Your task to perform on an android device: Clear all items from cart on newegg.com. Search for "bose soundsport free" on newegg.com, select the first entry, add it to the cart, then select checkout. Image 0: 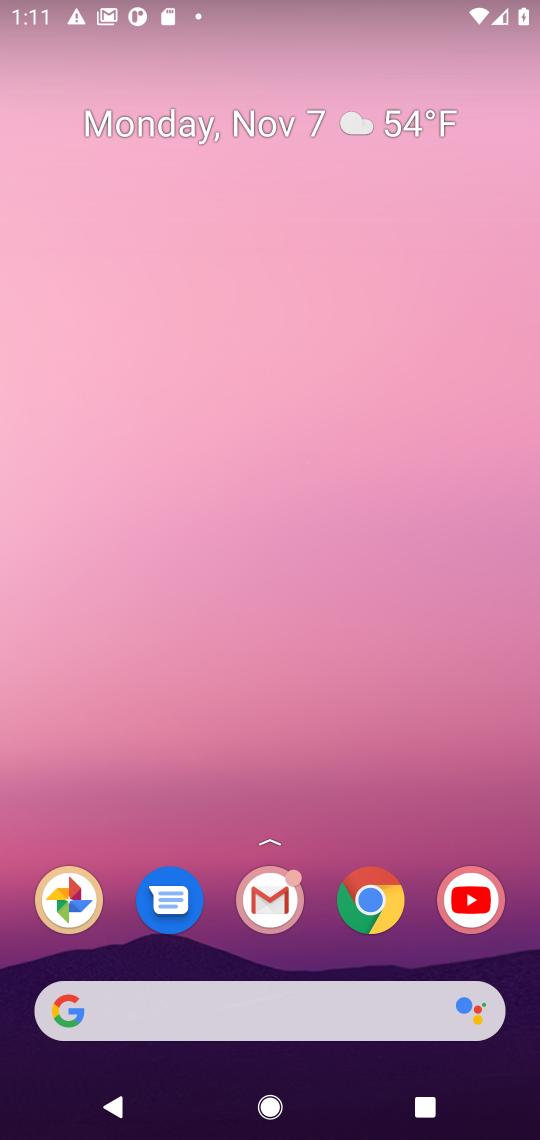
Step 0: click (274, 1010)
Your task to perform on an android device: Clear all items from cart on newegg.com. Search for "bose soundsport free" on newegg.com, select the first entry, add it to the cart, then select checkout. Image 1: 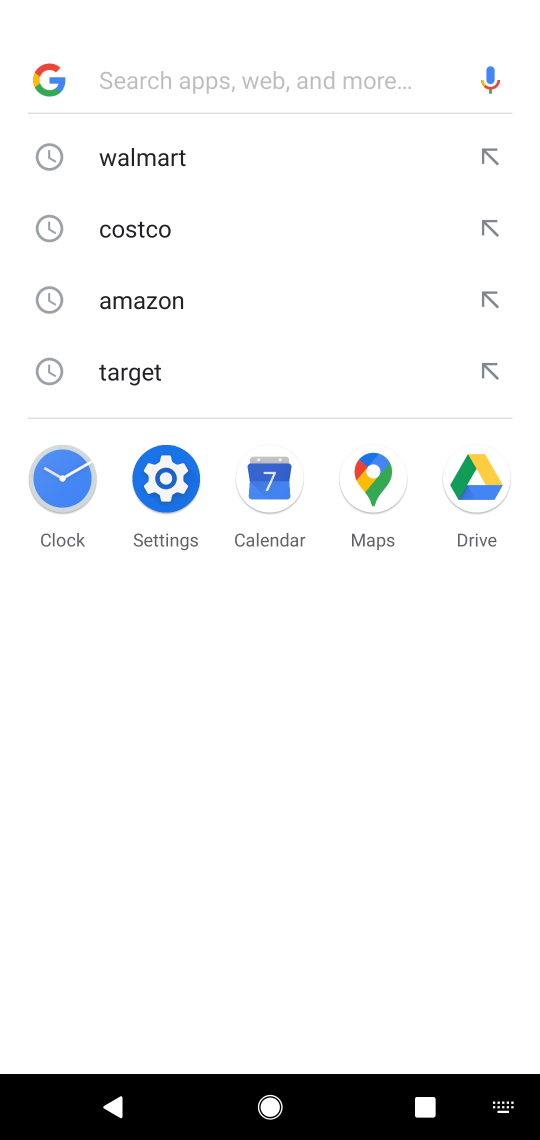
Step 1: type "newegg"
Your task to perform on an android device: Clear all items from cart on newegg.com. Search for "bose soundsport free" on newegg.com, select the first entry, add it to the cart, then select checkout. Image 2: 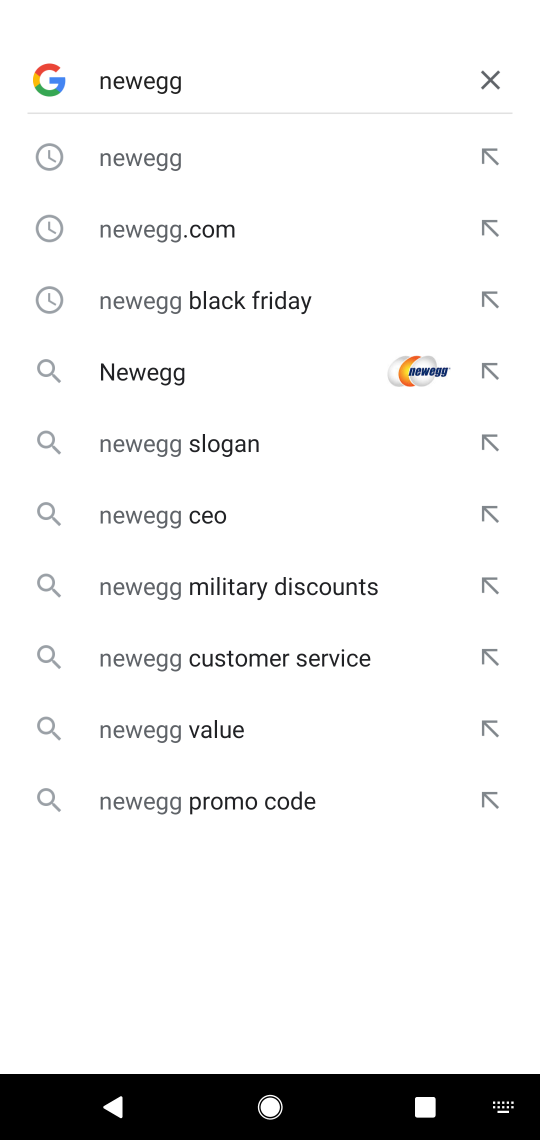
Step 2: click (145, 157)
Your task to perform on an android device: Clear all items from cart on newegg.com. Search for "bose soundsport free" on newegg.com, select the first entry, add it to the cart, then select checkout. Image 3: 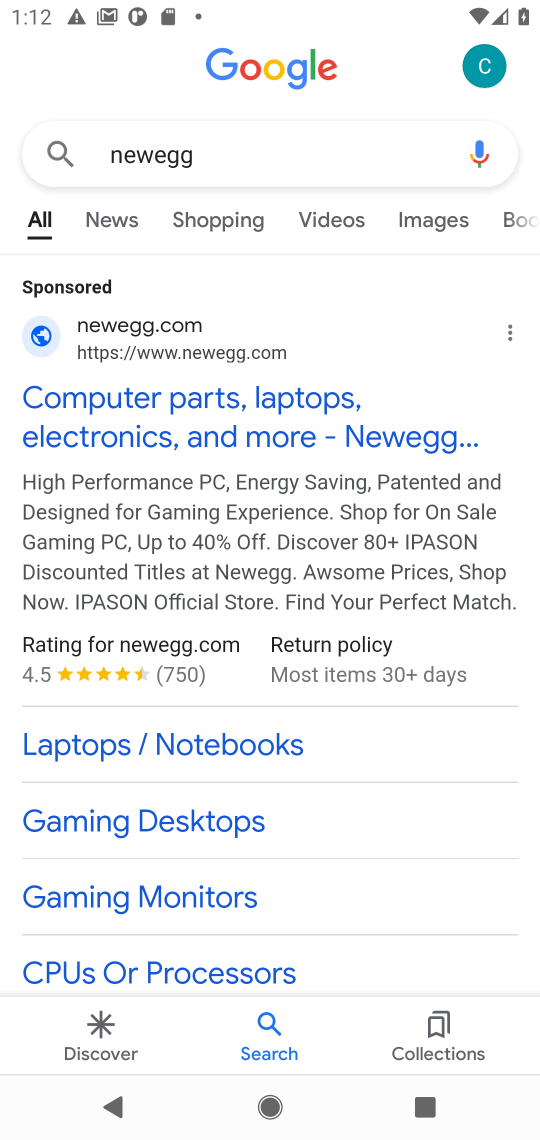
Step 3: click (243, 403)
Your task to perform on an android device: Clear all items from cart on newegg.com. Search for "bose soundsport free" on newegg.com, select the first entry, add it to the cart, then select checkout. Image 4: 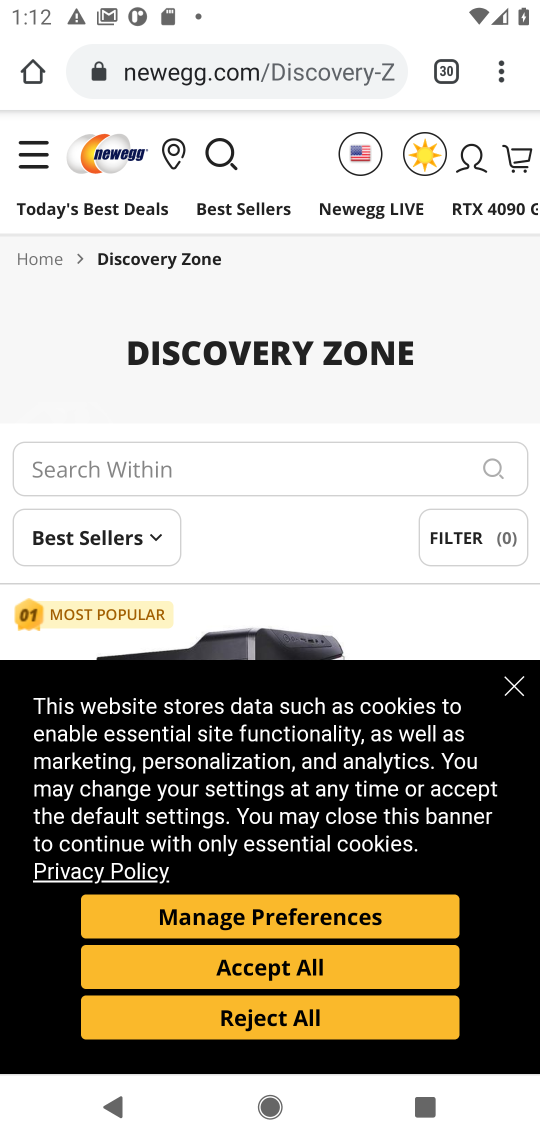
Step 4: task complete